Your task to perform on an android device: set default search engine in the chrome app Image 0: 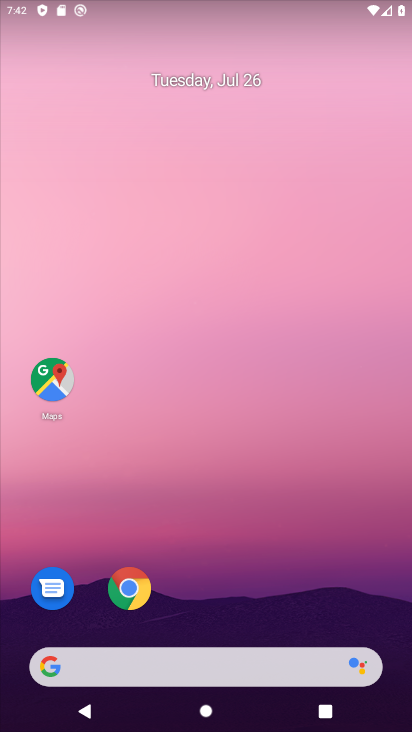
Step 0: drag from (205, 651) to (245, 212)
Your task to perform on an android device: set default search engine in the chrome app Image 1: 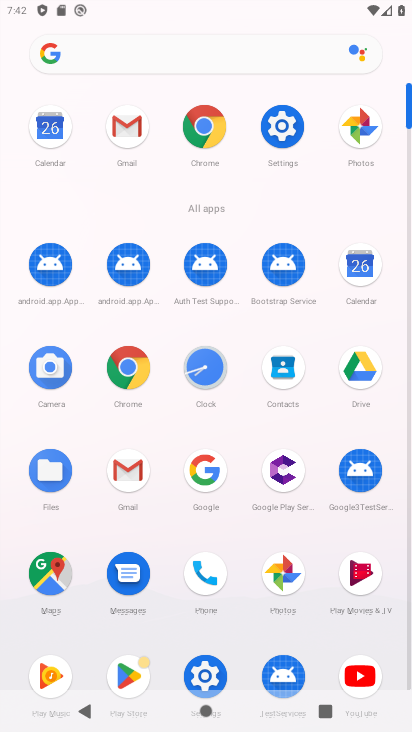
Step 1: click (204, 123)
Your task to perform on an android device: set default search engine in the chrome app Image 2: 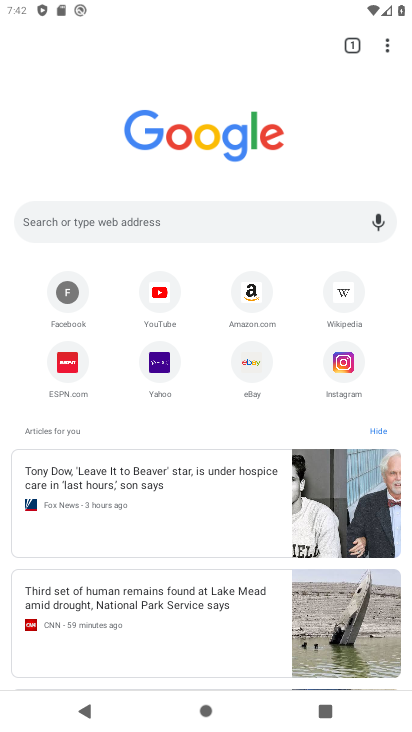
Step 2: click (386, 48)
Your task to perform on an android device: set default search engine in the chrome app Image 3: 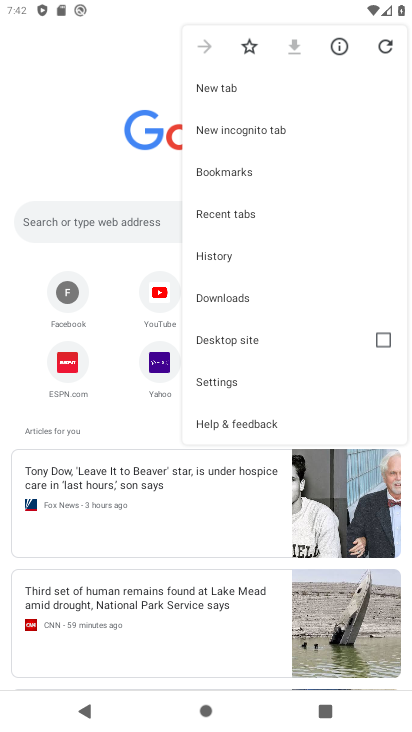
Step 3: click (202, 394)
Your task to perform on an android device: set default search engine in the chrome app Image 4: 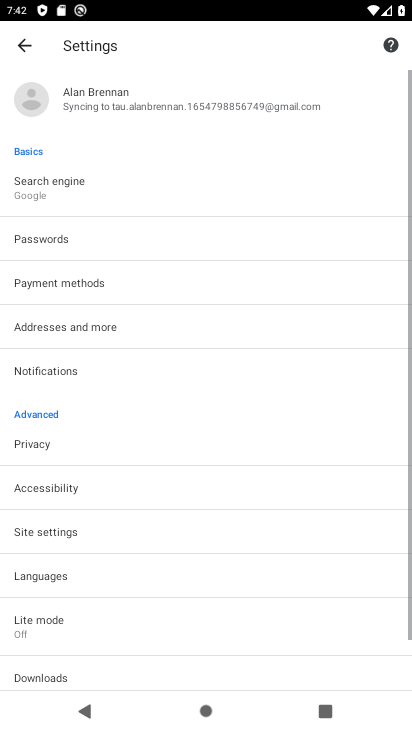
Step 4: click (34, 185)
Your task to perform on an android device: set default search engine in the chrome app Image 5: 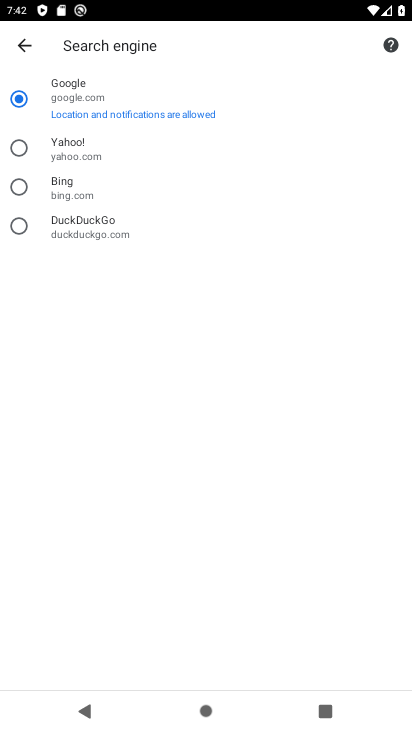
Step 5: task complete